Your task to perform on an android device: set default search engine in the chrome app Image 0: 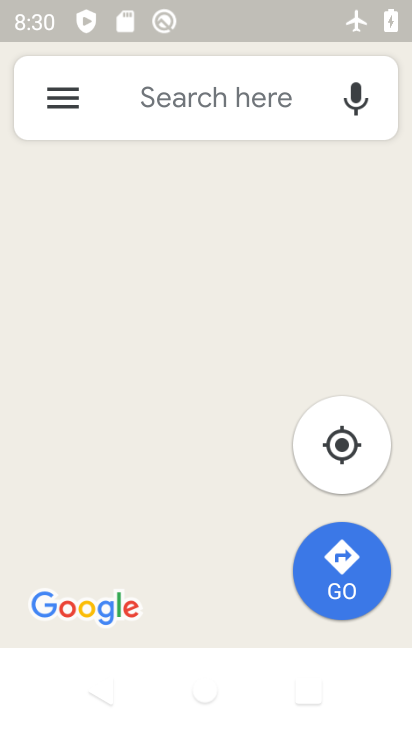
Step 0: press home button
Your task to perform on an android device: set default search engine in the chrome app Image 1: 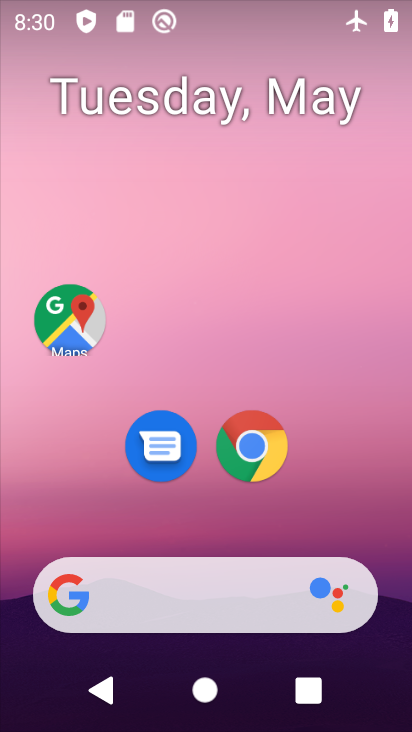
Step 1: drag from (390, 555) to (399, 243)
Your task to perform on an android device: set default search engine in the chrome app Image 2: 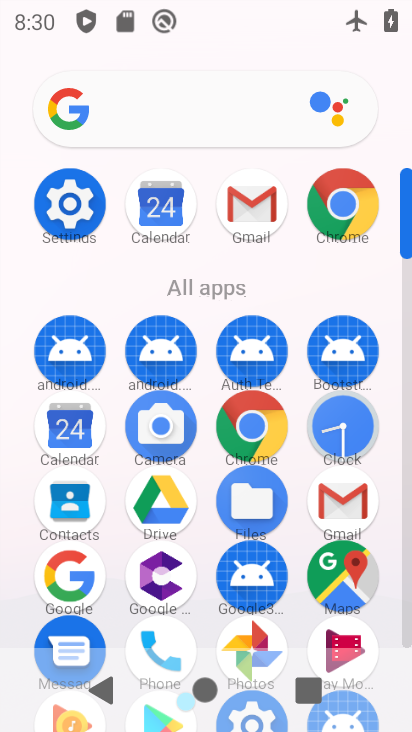
Step 2: click (270, 433)
Your task to perform on an android device: set default search engine in the chrome app Image 3: 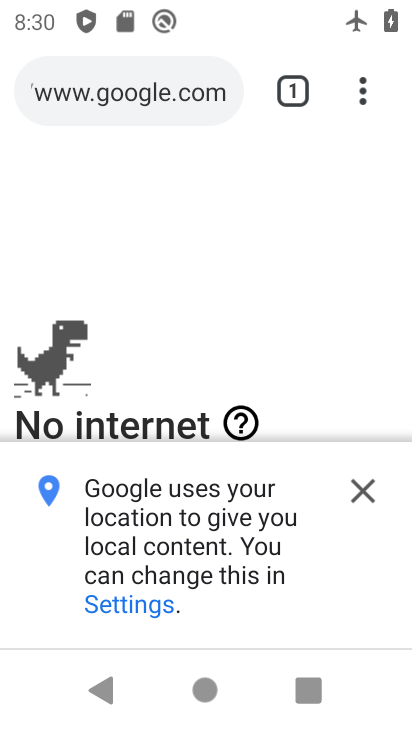
Step 3: click (365, 99)
Your task to perform on an android device: set default search engine in the chrome app Image 4: 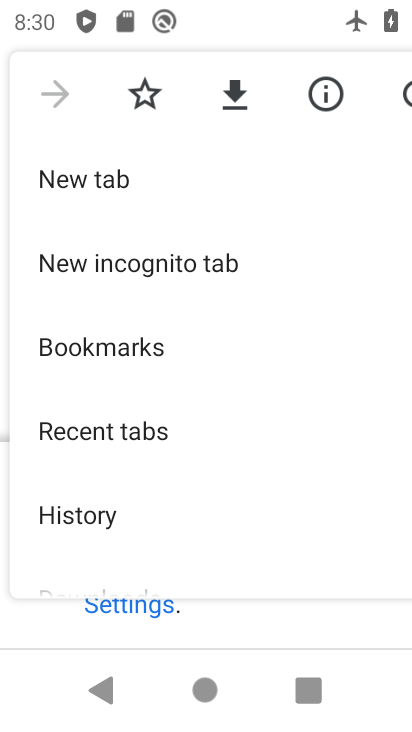
Step 4: drag from (324, 537) to (336, 441)
Your task to perform on an android device: set default search engine in the chrome app Image 5: 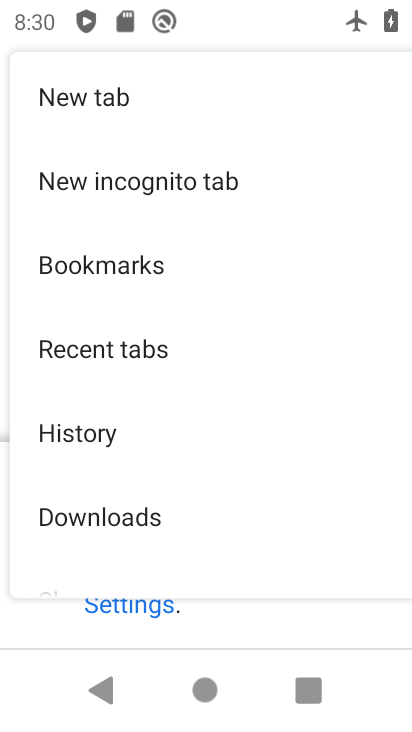
Step 5: drag from (341, 540) to (346, 426)
Your task to perform on an android device: set default search engine in the chrome app Image 6: 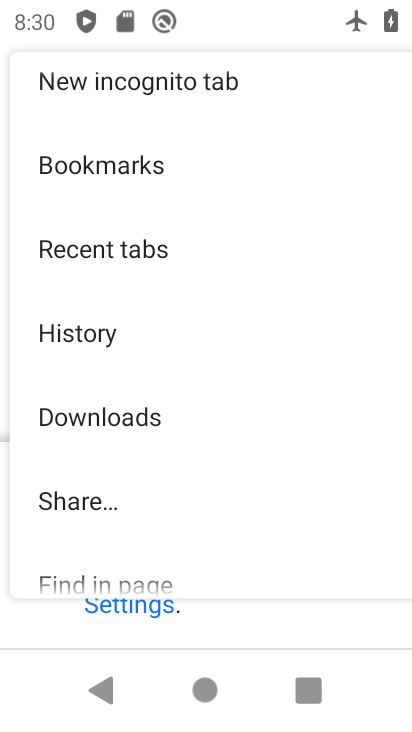
Step 6: drag from (329, 523) to (350, 390)
Your task to perform on an android device: set default search engine in the chrome app Image 7: 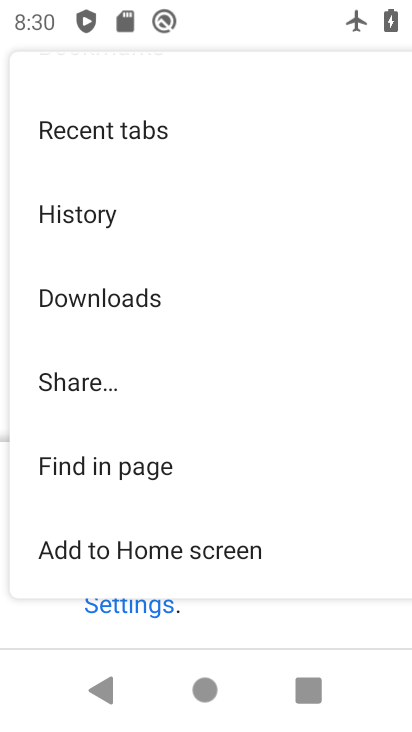
Step 7: drag from (345, 531) to (353, 436)
Your task to perform on an android device: set default search engine in the chrome app Image 8: 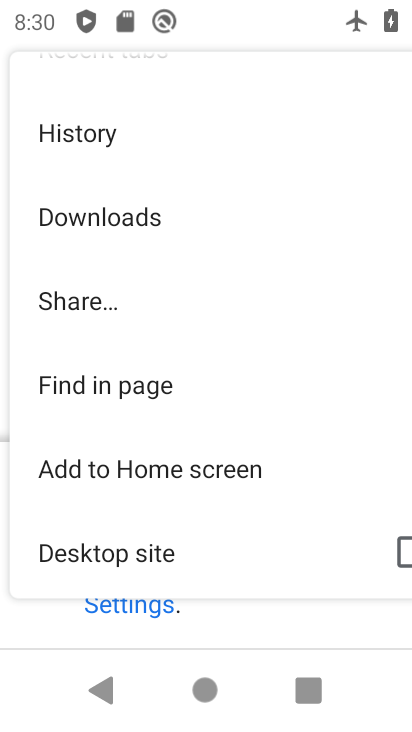
Step 8: drag from (336, 572) to (344, 440)
Your task to perform on an android device: set default search engine in the chrome app Image 9: 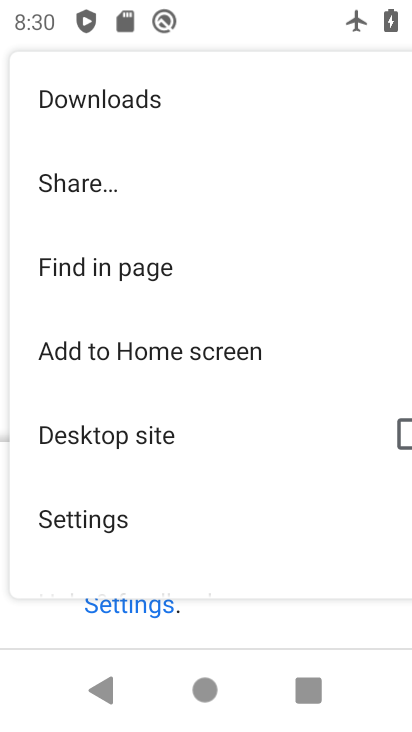
Step 9: drag from (329, 554) to (343, 457)
Your task to perform on an android device: set default search engine in the chrome app Image 10: 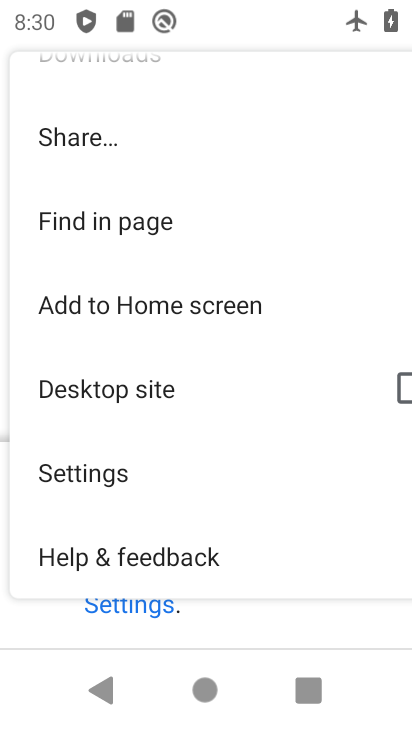
Step 10: click (177, 482)
Your task to perform on an android device: set default search engine in the chrome app Image 11: 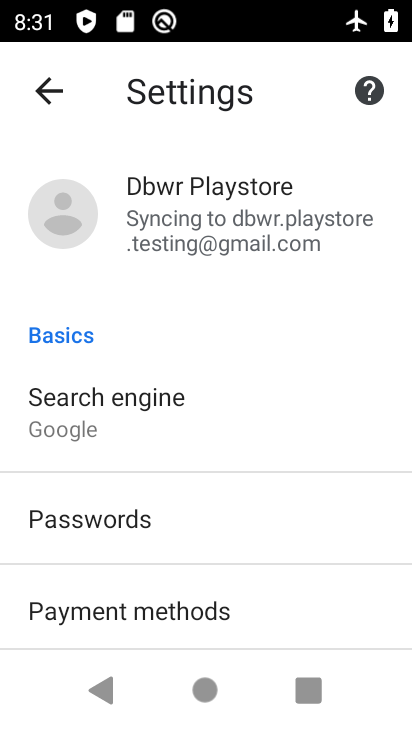
Step 11: drag from (358, 561) to (373, 479)
Your task to perform on an android device: set default search engine in the chrome app Image 12: 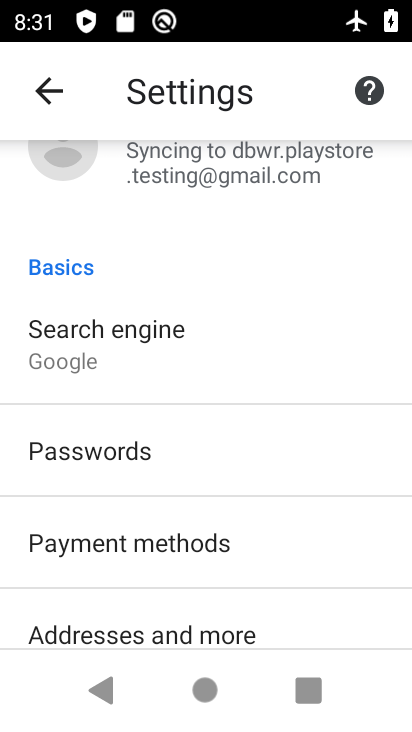
Step 12: drag from (371, 590) to (377, 488)
Your task to perform on an android device: set default search engine in the chrome app Image 13: 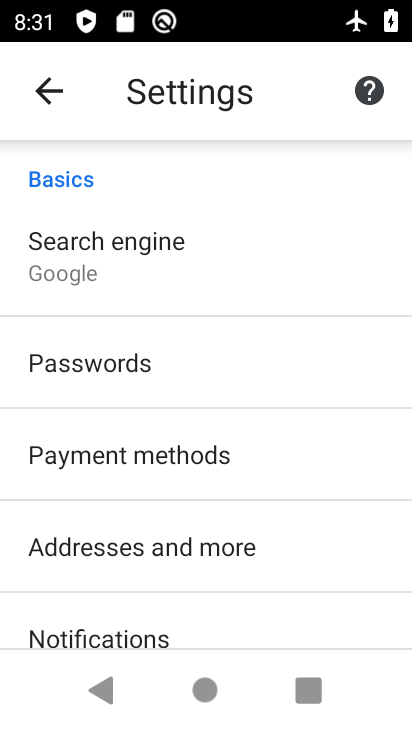
Step 13: drag from (359, 607) to (370, 497)
Your task to perform on an android device: set default search engine in the chrome app Image 14: 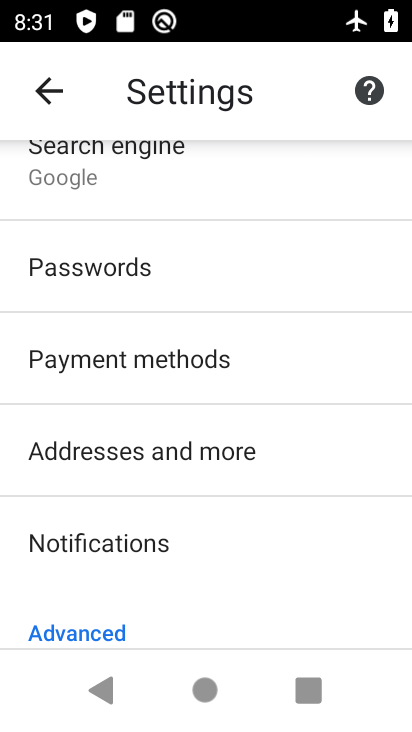
Step 14: drag from (338, 620) to (345, 512)
Your task to perform on an android device: set default search engine in the chrome app Image 15: 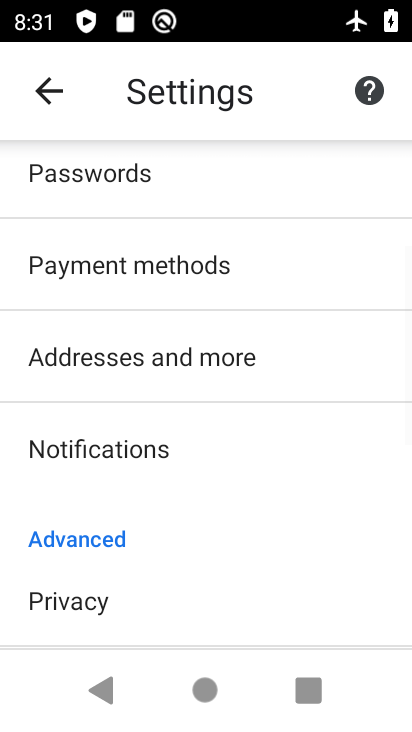
Step 15: drag from (351, 601) to (344, 483)
Your task to perform on an android device: set default search engine in the chrome app Image 16: 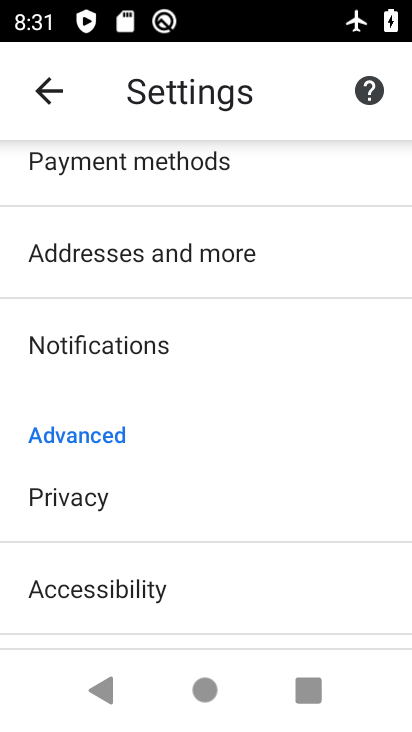
Step 16: drag from (340, 559) to (334, 419)
Your task to perform on an android device: set default search engine in the chrome app Image 17: 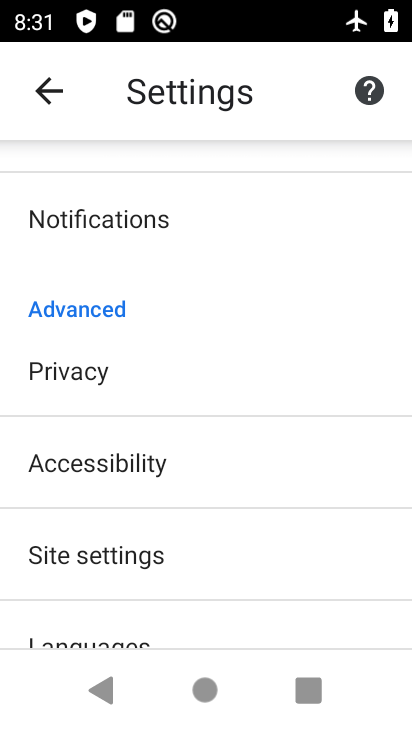
Step 17: drag from (331, 557) to (342, 402)
Your task to perform on an android device: set default search engine in the chrome app Image 18: 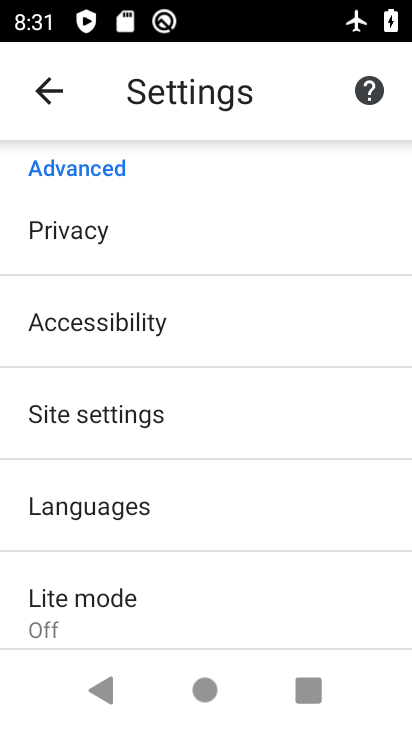
Step 18: drag from (352, 604) to (360, 376)
Your task to perform on an android device: set default search engine in the chrome app Image 19: 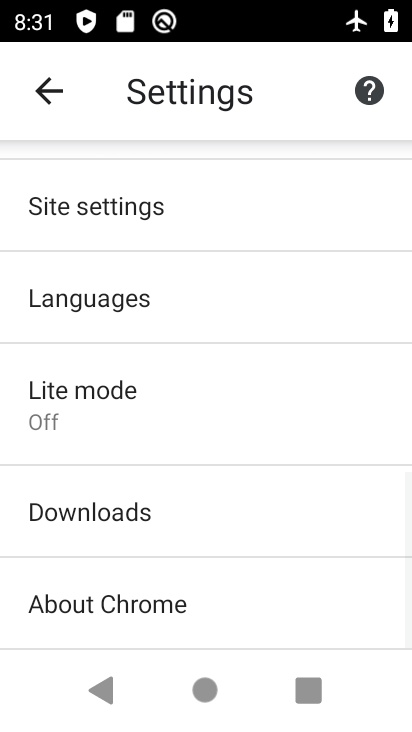
Step 19: drag from (371, 296) to (375, 431)
Your task to perform on an android device: set default search engine in the chrome app Image 20: 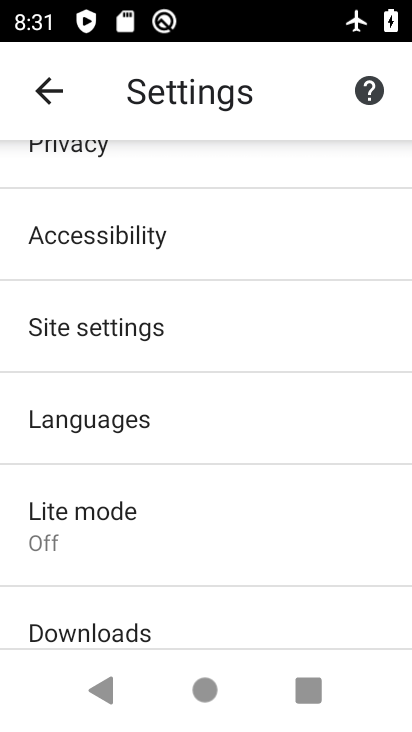
Step 20: drag from (379, 293) to (367, 439)
Your task to perform on an android device: set default search engine in the chrome app Image 21: 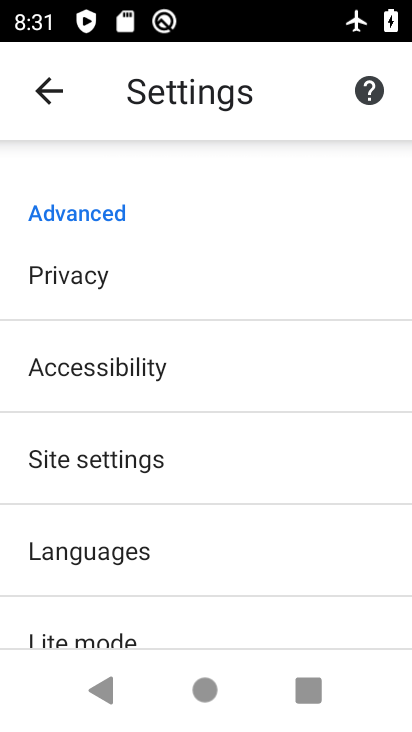
Step 21: drag from (376, 267) to (353, 411)
Your task to perform on an android device: set default search engine in the chrome app Image 22: 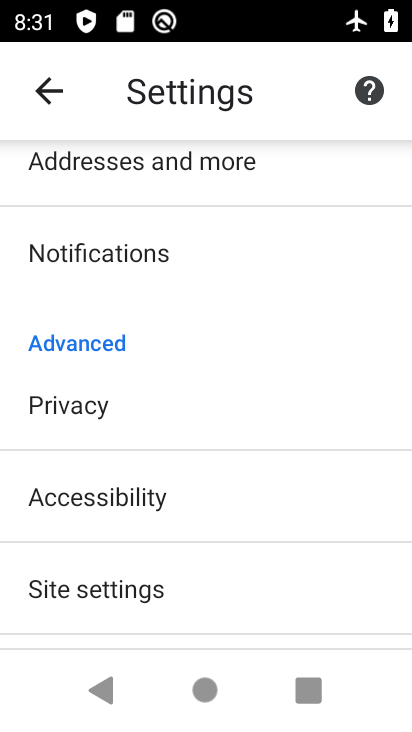
Step 22: drag from (348, 273) to (339, 395)
Your task to perform on an android device: set default search engine in the chrome app Image 23: 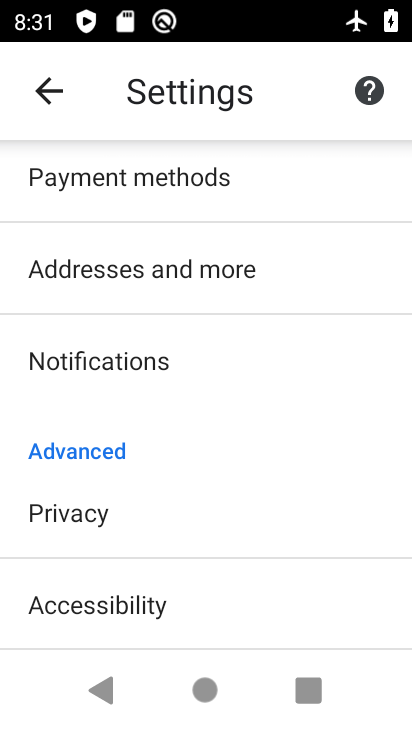
Step 23: drag from (343, 281) to (351, 415)
Your task to perform on an android device: set default search engine in the chrome app Image 24: 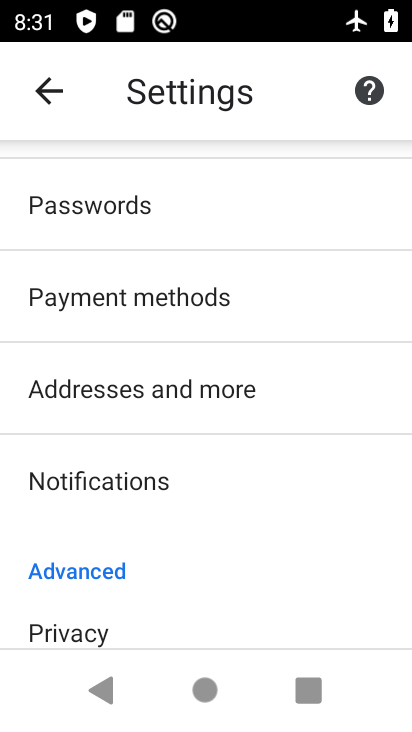
Step 24: drag from (352, 236) to (329, 392)
Your task to perform on an android device: set default search engine in the chrome app Image 25: 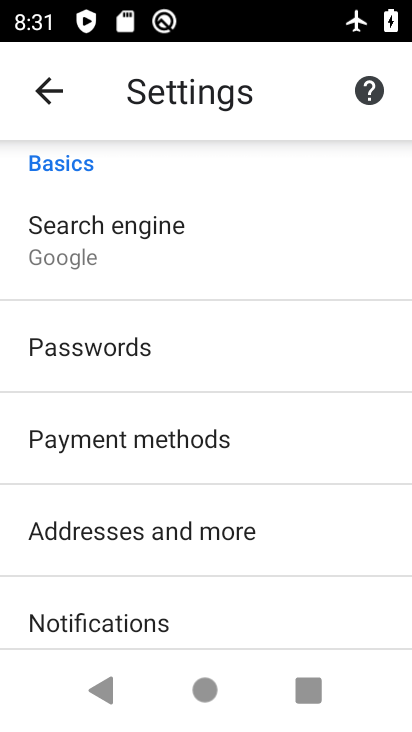
Step 25: click (161, 276)
Your task to perform on an android device: set default search engine in the chrome app Image 26: 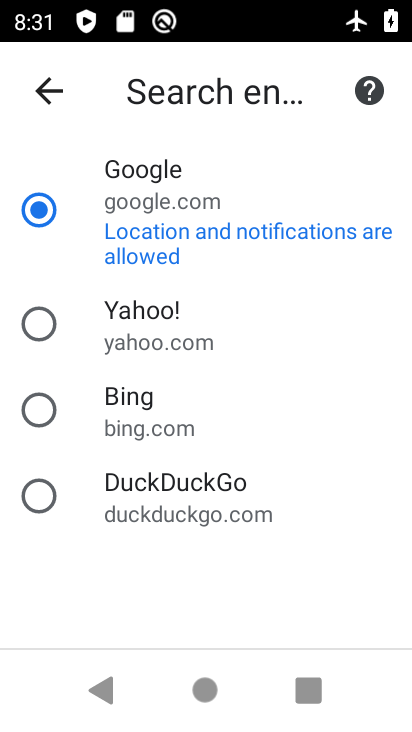
Step 26: click (150, 401)
Your task to perform on an android device: set default search engine in the chrome app Image 27: 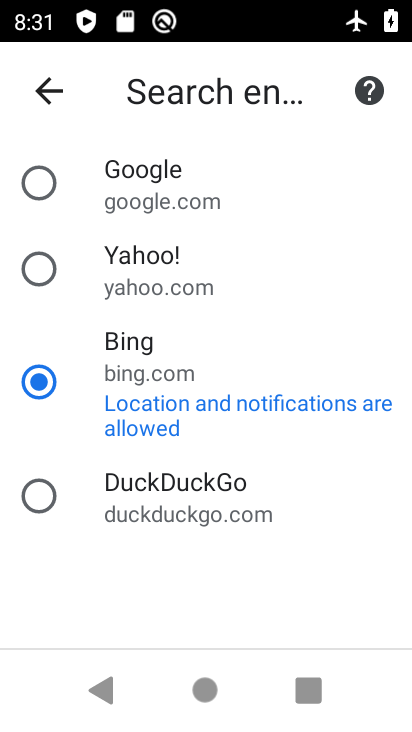
Step 27: task complete